Your task to perform on an android device: Turn on the flashlight Image 0: 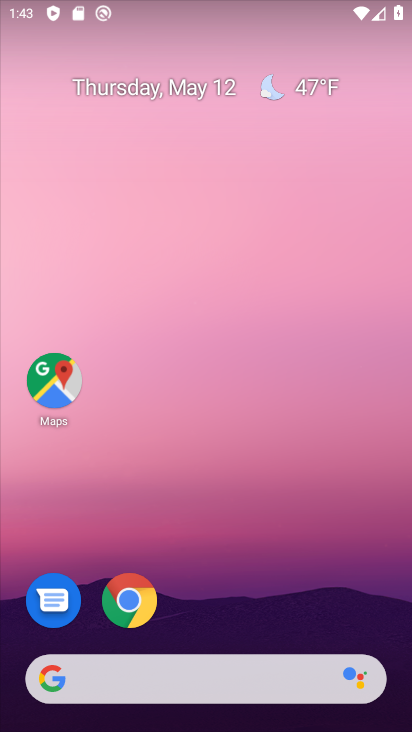
Step 0: drag from (206, 594) to (241, 138)
Your task to perform on an android device: Turn on the flashlight Image 1: 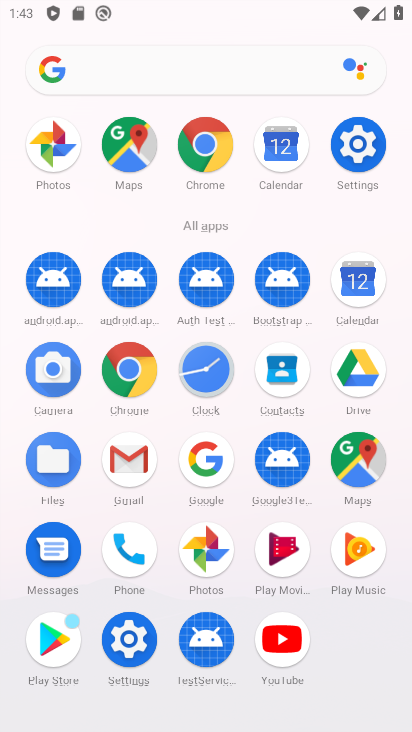
Step 1: click (358, 153)
Your task to perform on an android device: Turn on the flashlight Image 2: 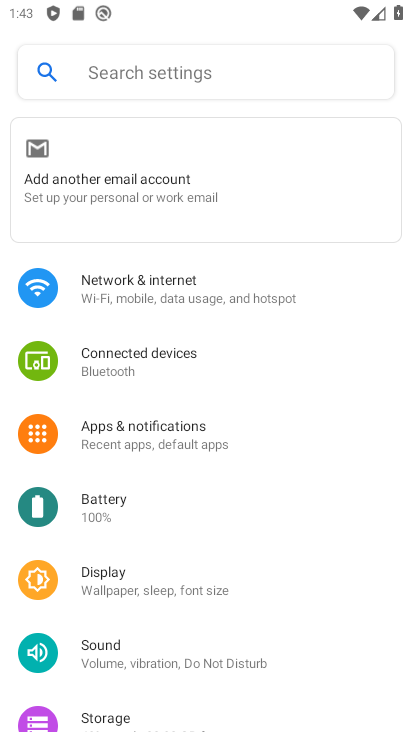
Step 2: task complete